Your task to perform on an android device: add a contact in the contacts app Image 0: 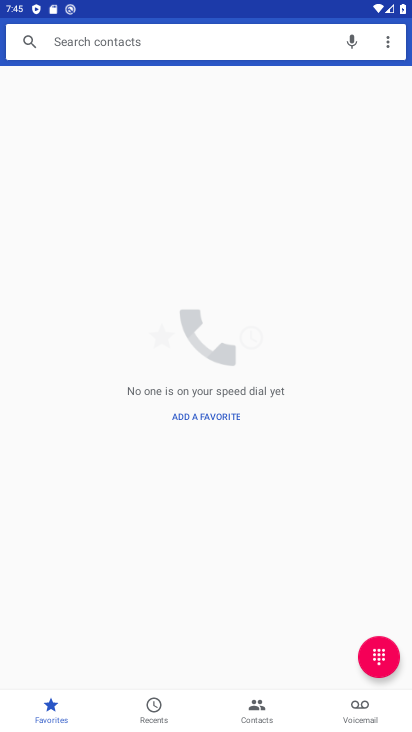
Step 0: press back button
Your task to perform on an android device: add a contact in the contacts app Image 1: 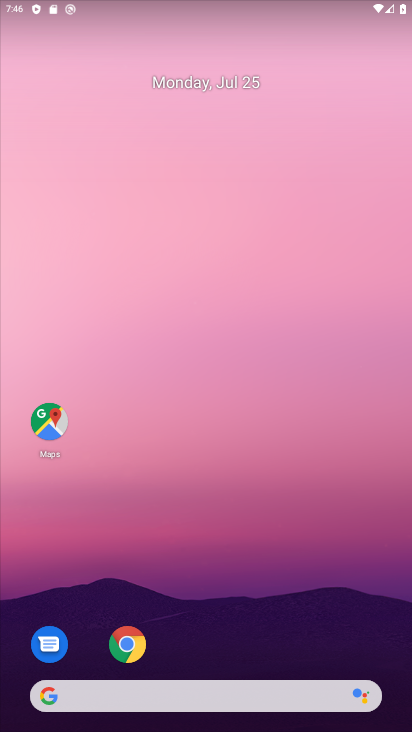
Step 1: drag from (157, 486) to (143, 221)
Your task to perform on an android device: add a contact in the contacts app Image 2: 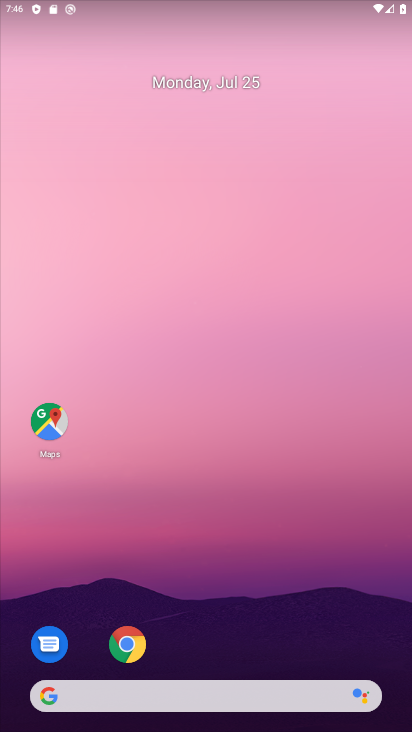
Step 2: drag from (176, 556) to (189, 133)
Your task to perform on an android device: add a contact in the contacts app Image 3: 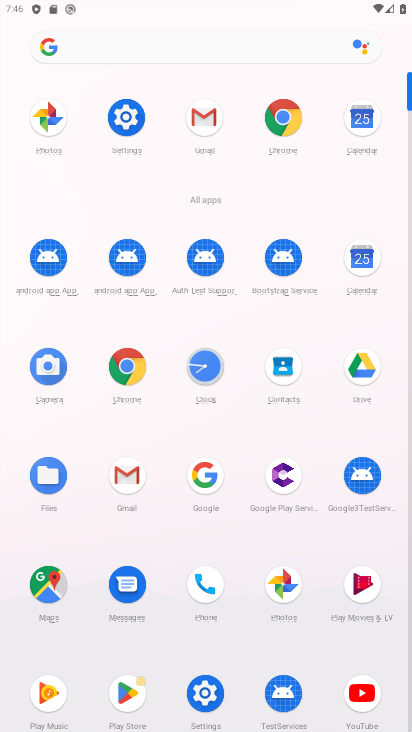
Step 3: click (286, 378)
Your task to perform on an android device: add a contact in the contacts app Image 4: 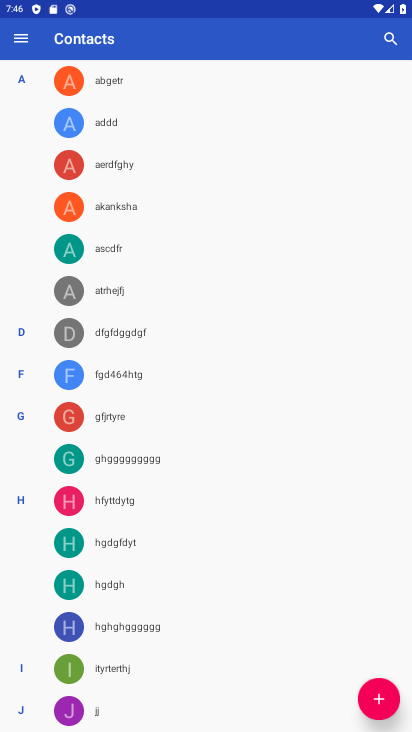
Step 4: click (387, 702)
Your task to perform on an android device: add a contact in the contacts app Image 5: 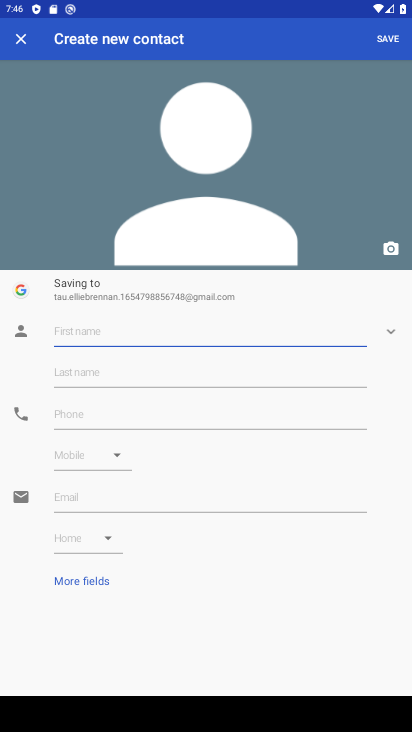
Step 5: type "Kirana"
Your task to perform on an android device: add a contact in the contacts app Image 6: 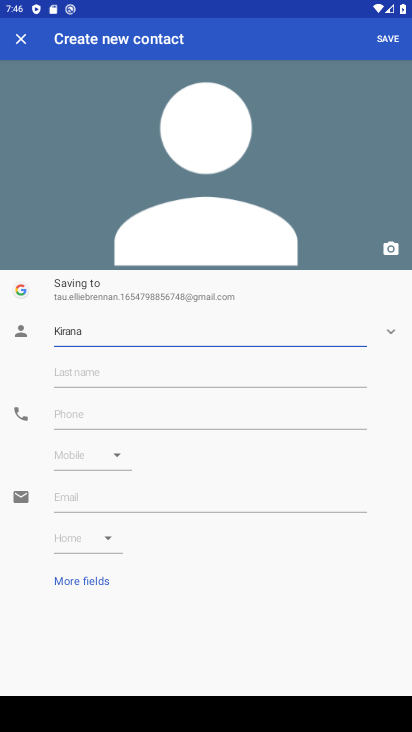
Step 6: click (93, 380)
Your task to perform on an android device: add a contact in the contacts app Image 7: 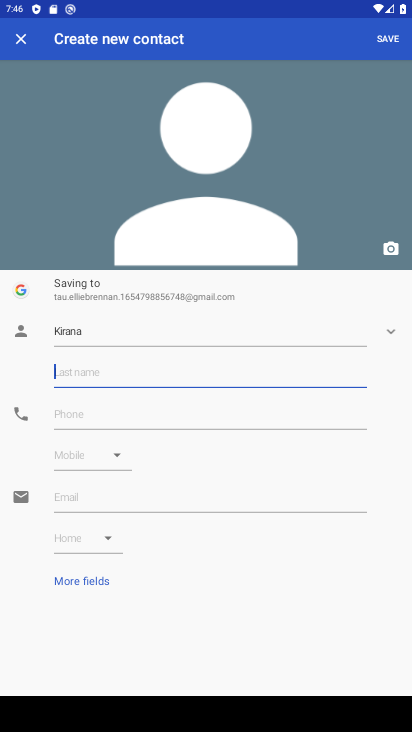
Step 7: type "Sheetal"
Your task to perform on an android device: add a contact in the contacts app Image 8: 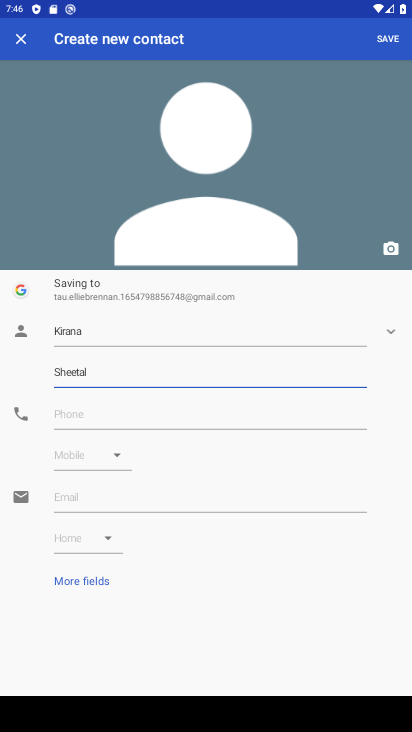
Step 8: click (219, 408)
Your task to perform on an android device: add a contact in the contacts app Image 9: 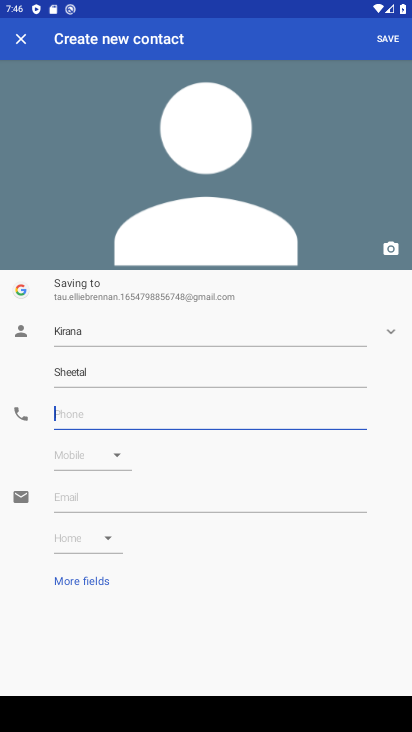
Step 9: type "8182938465"
Your task to perform on an android device: add a contact in the contacts app Image 10: 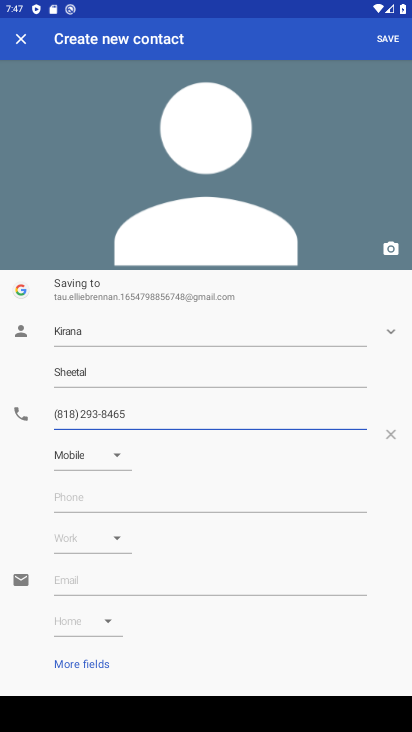
Step 10: click (390, 43)
Your task to perform on an android device: add a contact in the contacts app Image 11: 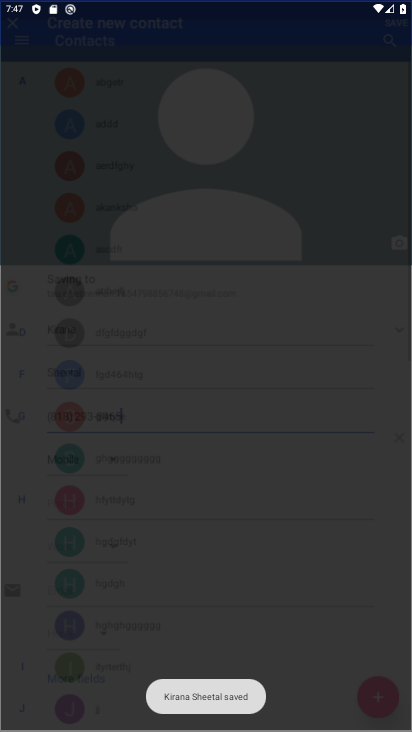
Step 11: task complete